Your task to perform on an android device: open wifi settings Image 0: 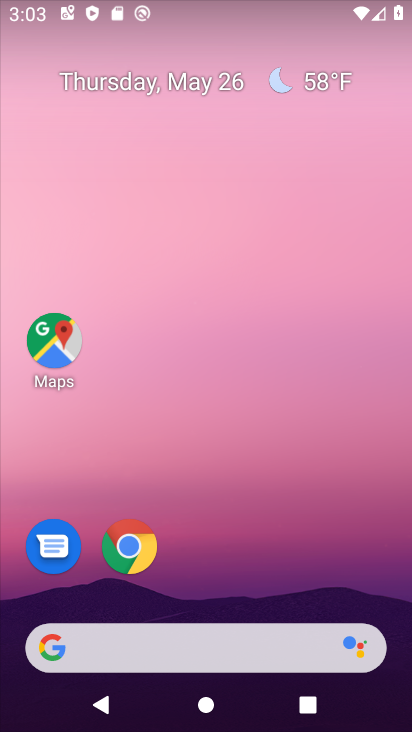
Step 0: press home button
Your task to perform on an android device: open wifi settings Image 1: 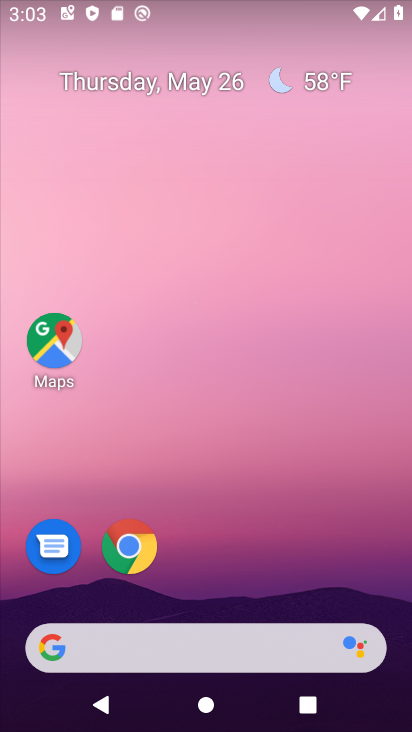
Step 1: drag from (230, 594) to (255, 22)
Your task to perform on an android device: open wifi settings Image 2: 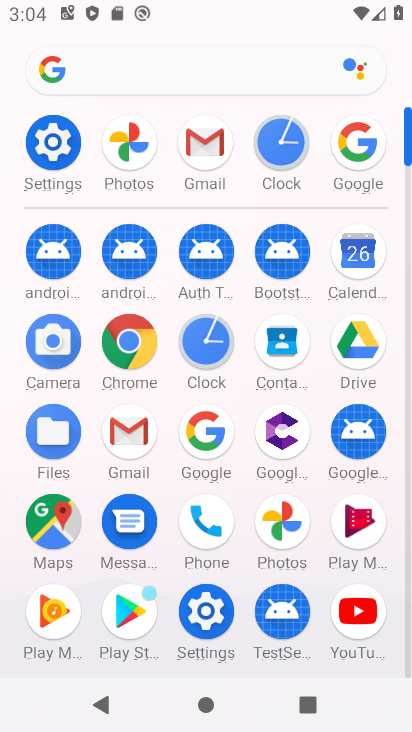
Step 2: click (50, 138)
Your task to perform on an android device: open wifi settings Image 3: 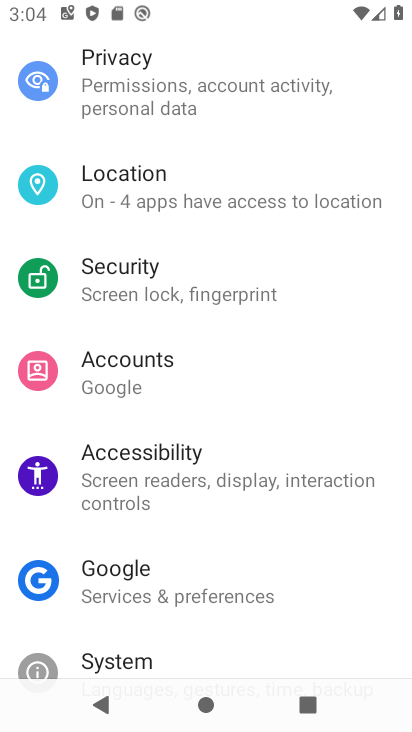
Step 3: drag from (183, 137) to (231, 669)
Your task to perform on an android device: open wifi settings Image 4: 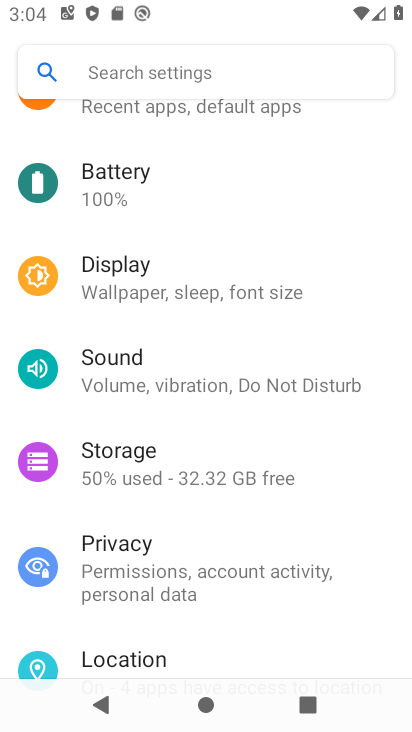
Step 4: drag from (169, 142) to (195, 557)
Your task to perform on an android device: open wifi settings Image 5: 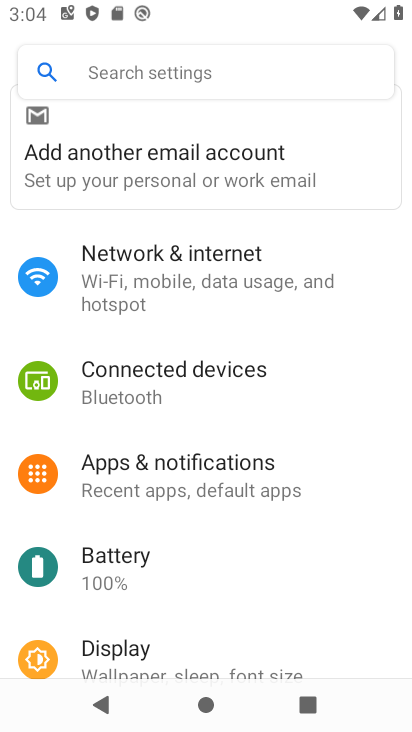
Step 5: click (177, 288)
Your task to perform on an android device: open wifi settings Image 6: 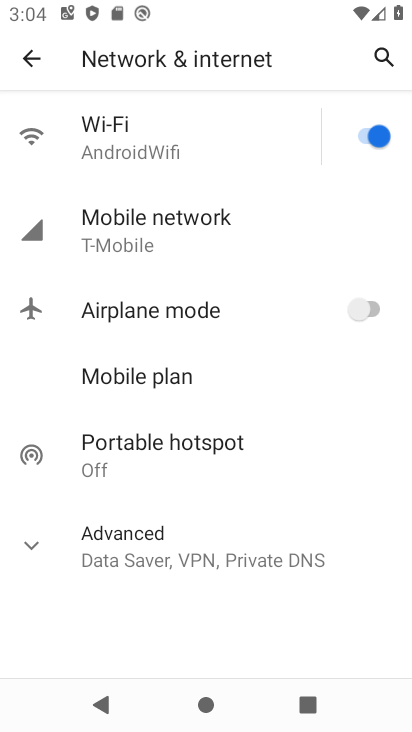
Step 6: click (217, 136)
Your task to perform on an android device: open wifi settings Image 7: 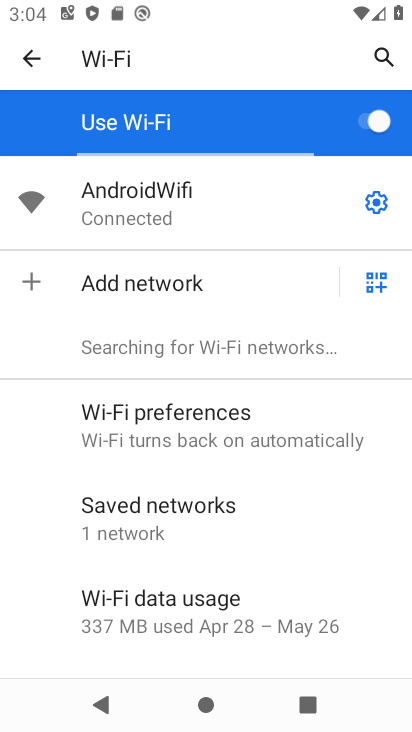
Step 7: task complete